Your task to perform on an android device: Do I have any events today? Image 0: 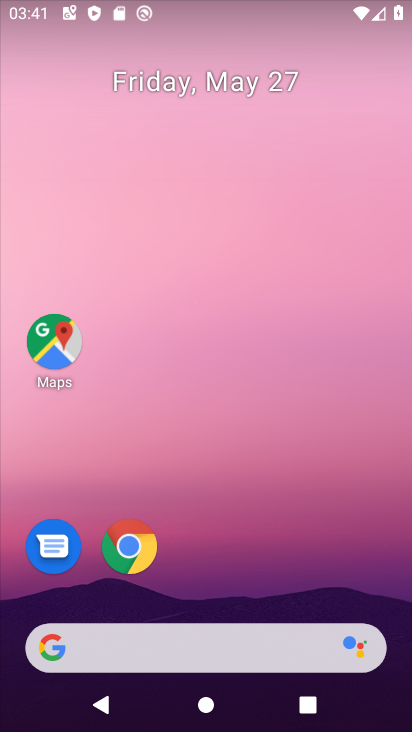
Step 0: drag from (382, 511) to (341, 267)
Your task to perform on an android device: Do I have any events today? Image 1: 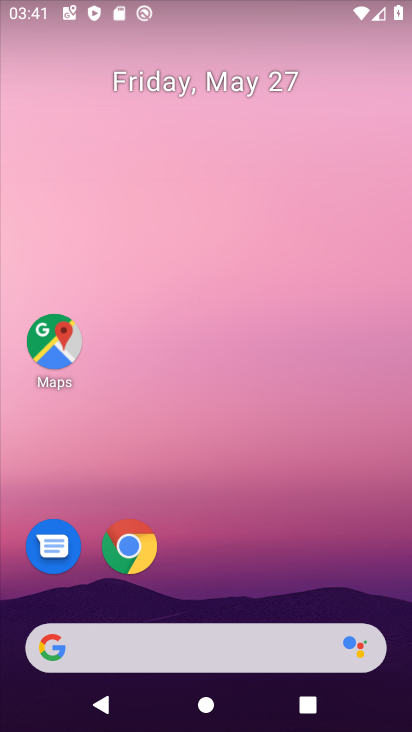
Step 1: drag from (382, 592) to (353, 175)
Your task to perform on an android device: Do I have any events today? Image 2: 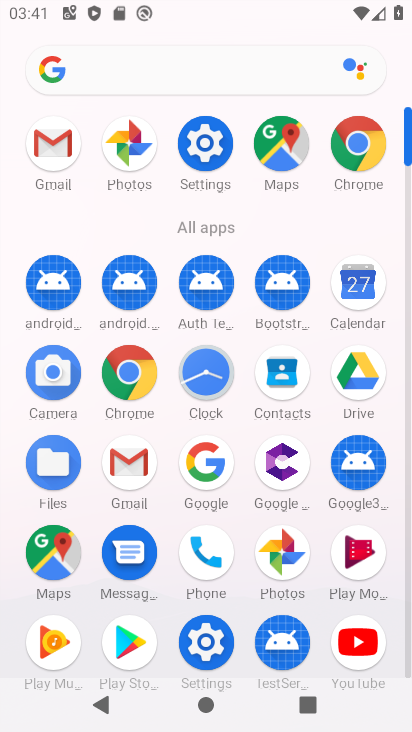
Step 2: click (353, 284)
Your task to perform on an android device: Do I have any events today? Image 3: 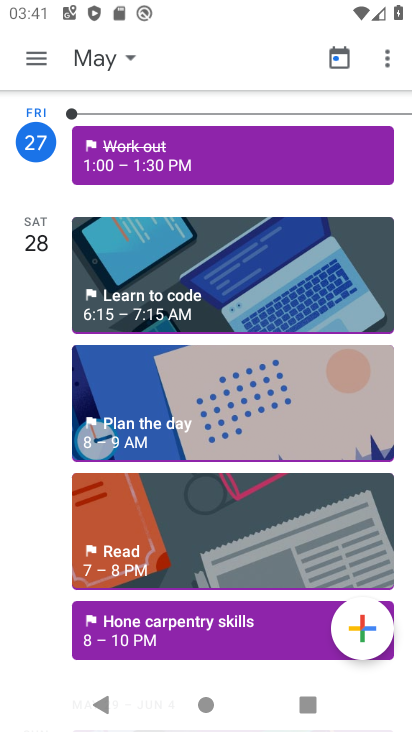
Step 3: click (35, 61)
Your task to perform on an android device: Do I have any events today? Image 4: 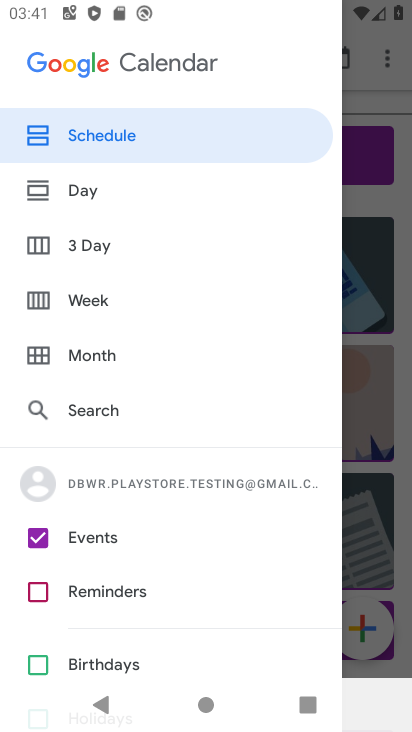
Step 4: click (73, 187)
Your task to perform on an android device: Do I have any events today? Image 5: 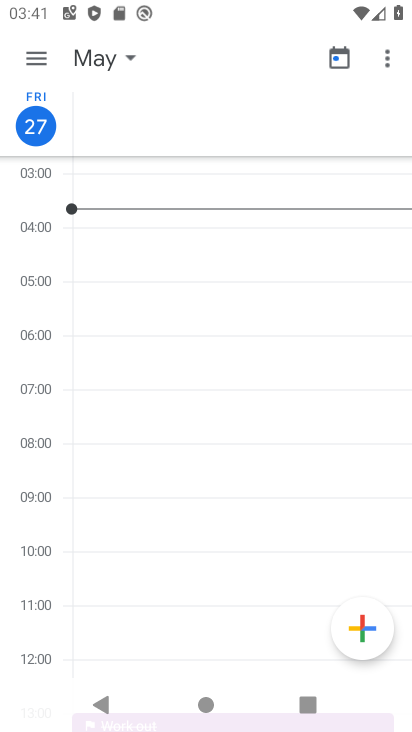
Step 5: click (37, 59)
Your task to perform on an android device: Do I have any events today? Image 6: 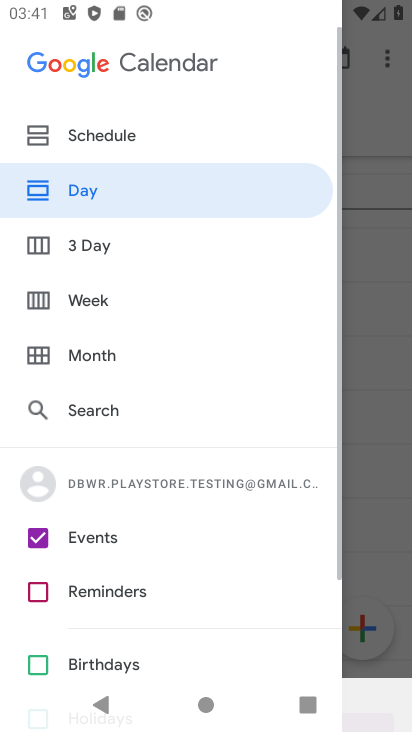
Step 6: click (71, 132)
Your task to perform on an android device: Do I have any events today? Image 7: 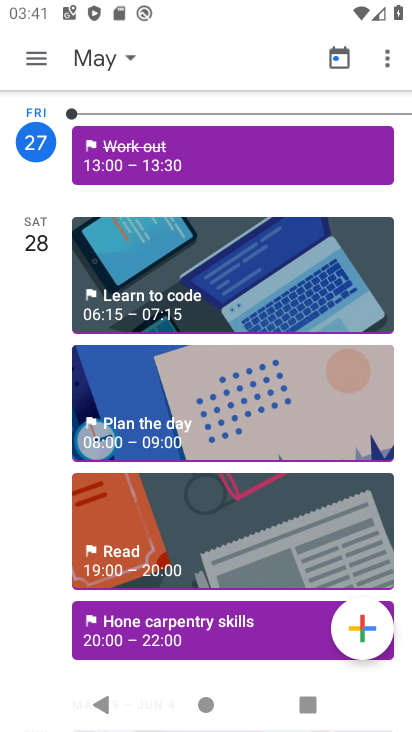
Step 7: task complete